Your task to perform on an android device: add a contact Image 0: 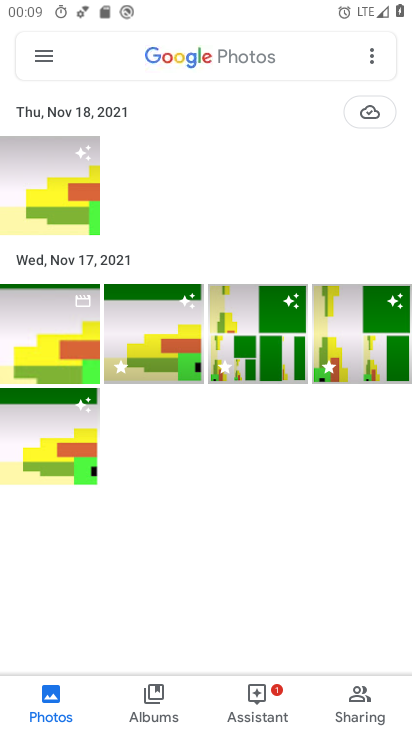
Step 0: press back button
Your task to perform on an android device: add a contact Image 1: 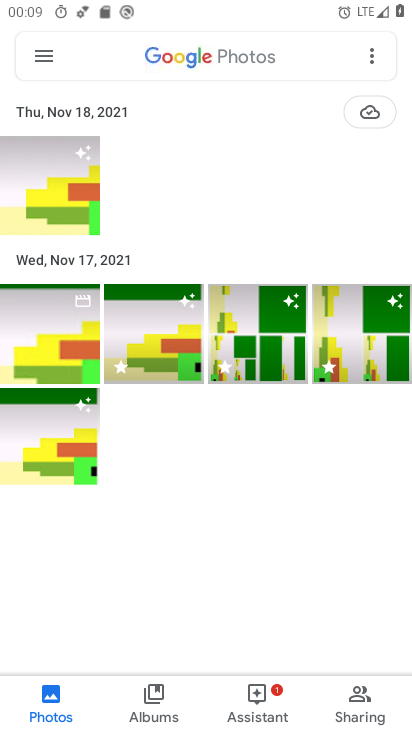
Step 1: press back button
Your task to perform on an android device: add a contact Image 2: 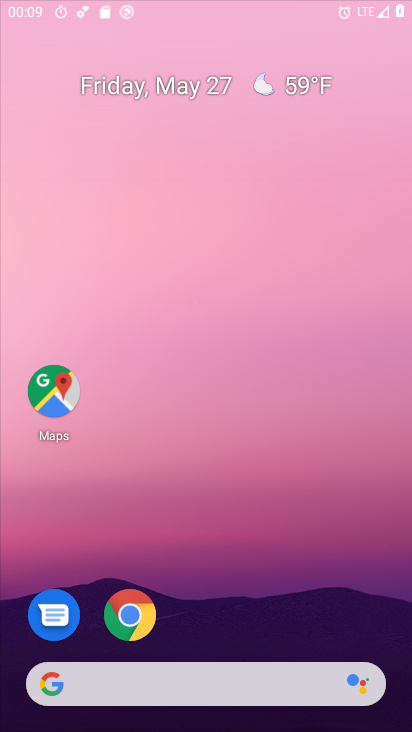
Step 2: press back button
Your task to perform on an android device: add a contact Image 3: 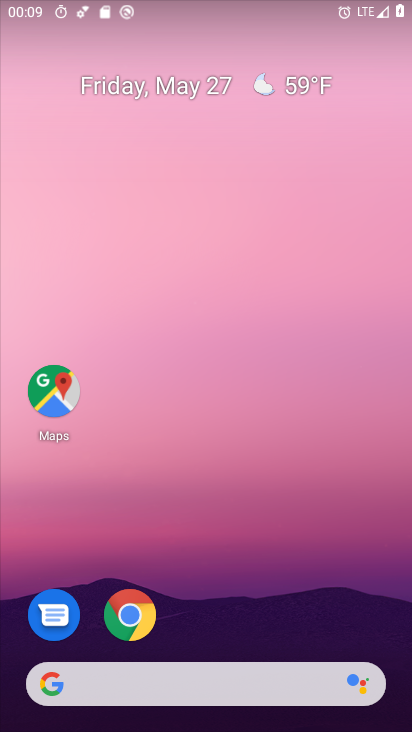
Step 3: drag from (309, 681) to (161, 217)
Your task to perform on an android device: add a contact Image 4: 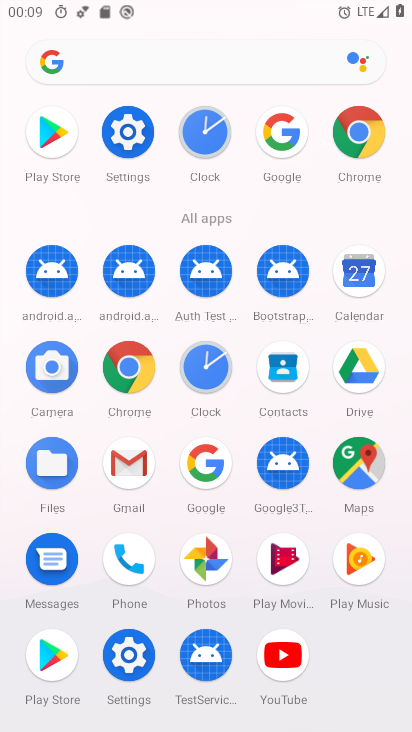
Step 4: click (289, 359)
Your task to perform on an android device: add a contact Image 5: 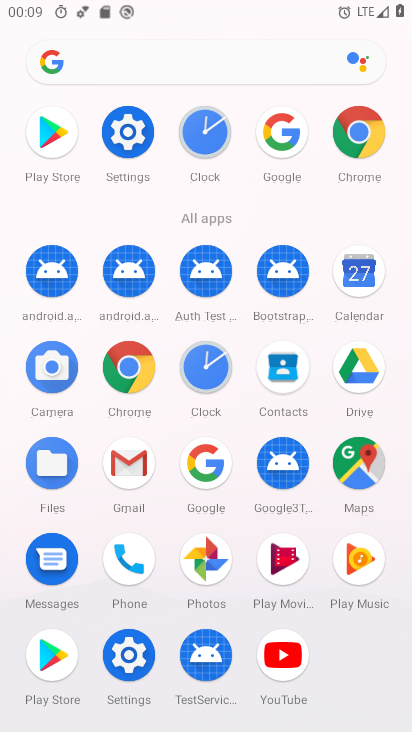
Step 5: click (289, 359)
Your task to perform on an android device: add a contact Image 6: 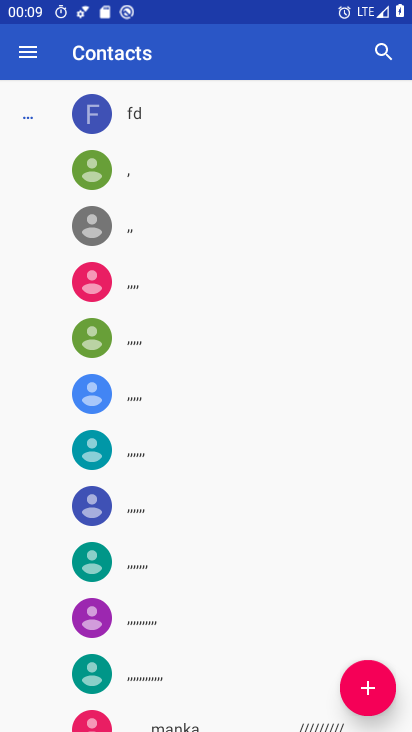
Step 6: click (359, 691)
Your task to perform on an android device: add a contact Image 7: 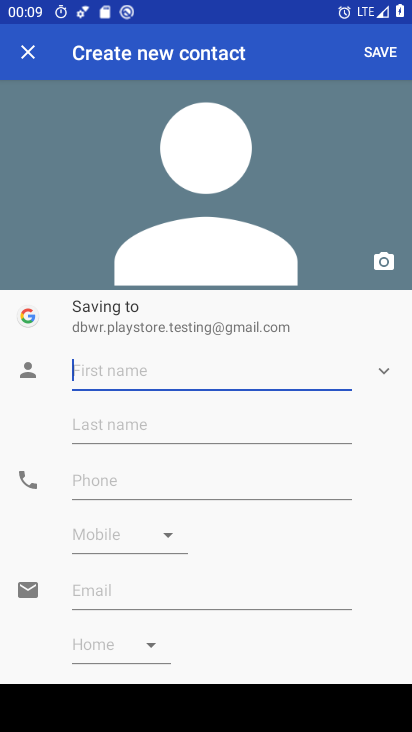
Step 7: click (87, 368)
Your task to perform on an android device: add a contact Image 8: 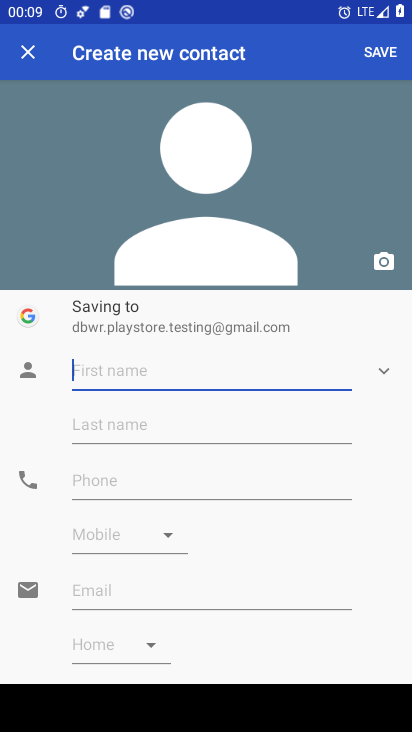
Step 8: type "sjkshjkshfkjs"
Your task to perform on an android device: add a contact Image 9: 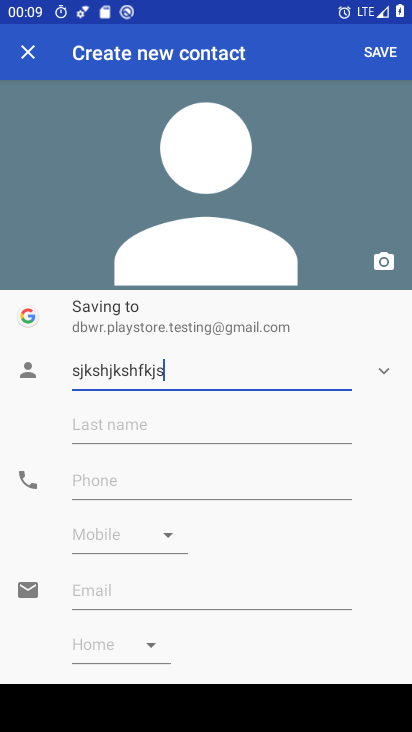
Step 9: click (88, 482)
Your task to perform on an android device: add a contact Image 10: 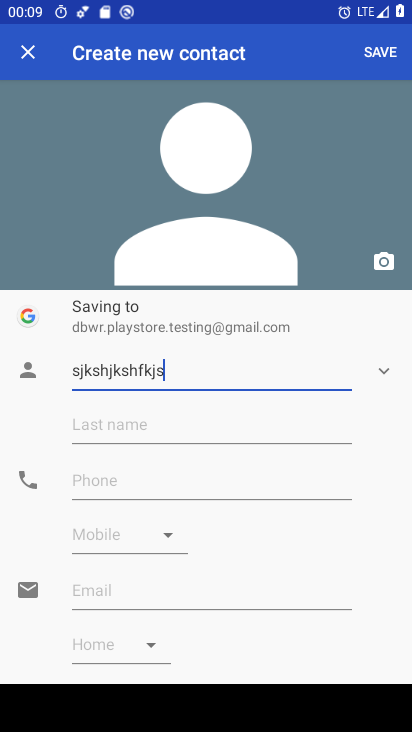
Step 10: click (88, 482)
Your task to perform on an android device: add a contact Image 11: 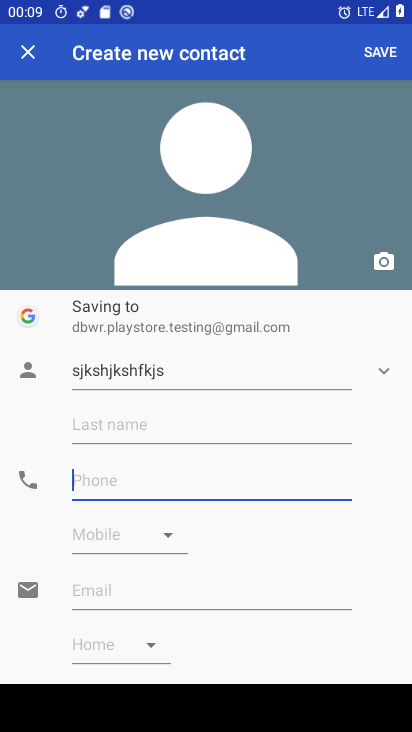
Step 11: click (88, 482)
Your task to perform on an android device: add a contact Image 12: 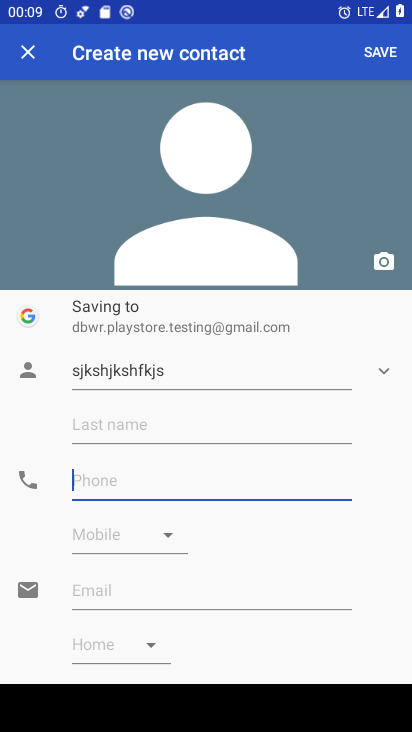
Step 12: click (88, 482)
Your task to perform on an android device: add a contact Image 13: 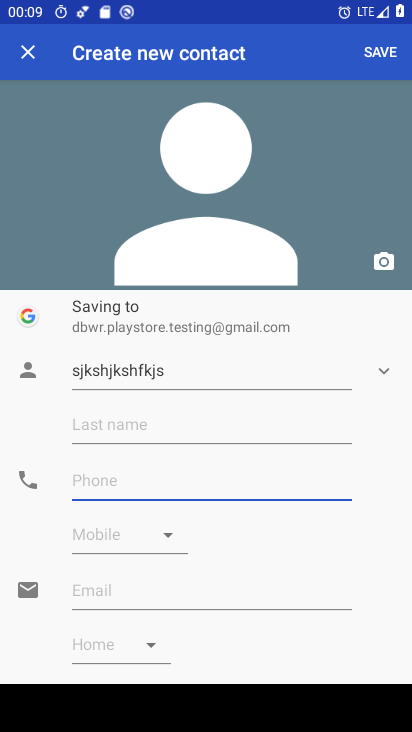
Step 13: click (88, 482)
Your task to perform on an android device: add a contact Image 14: 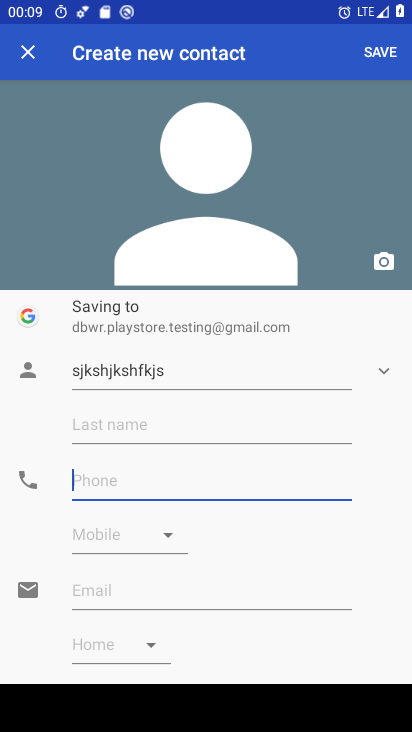
Step 14: type "768977298789"
Your task to perform on an android device: add a contact Image 15: 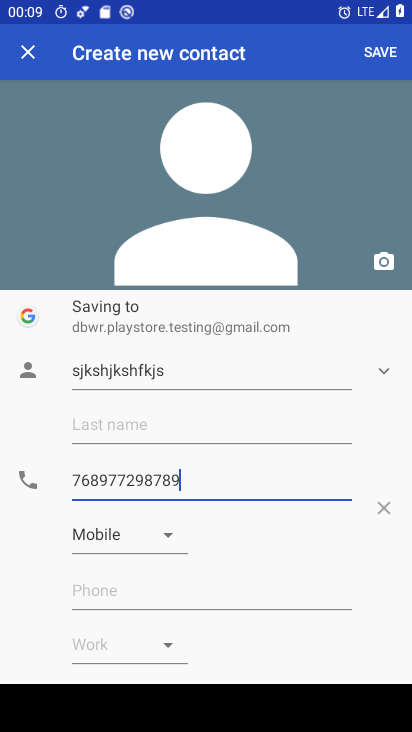
Step 15: click (377, 55)
Your task to perform on an android device: add a contact Image 16: 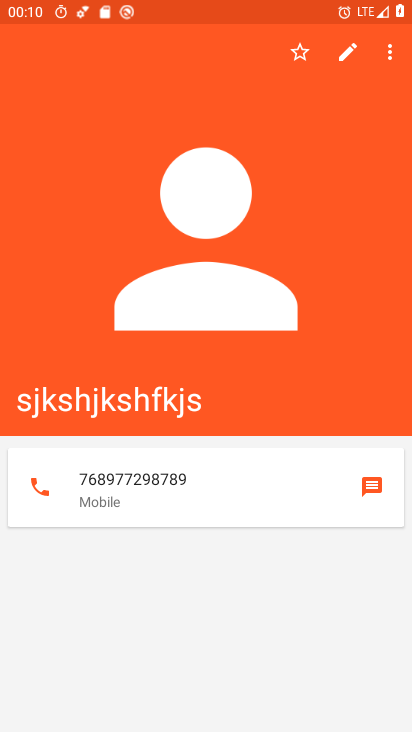
Step 16: task complete